Your task to perform on an android device: turn notification dots off Image 0: 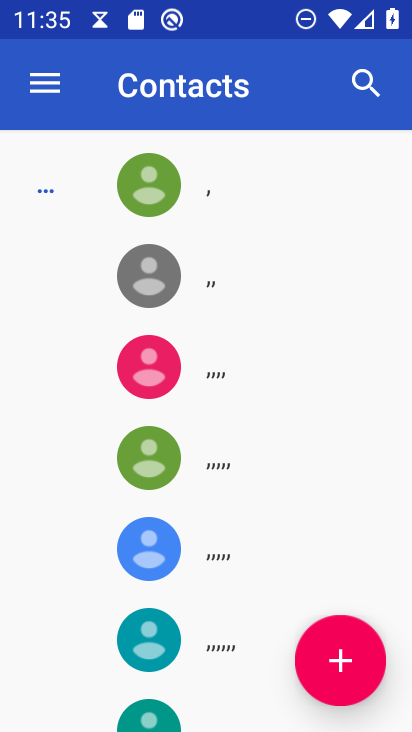
Step 0: press home button
Your task to perform on an android device: turn notification dots off Image 1: 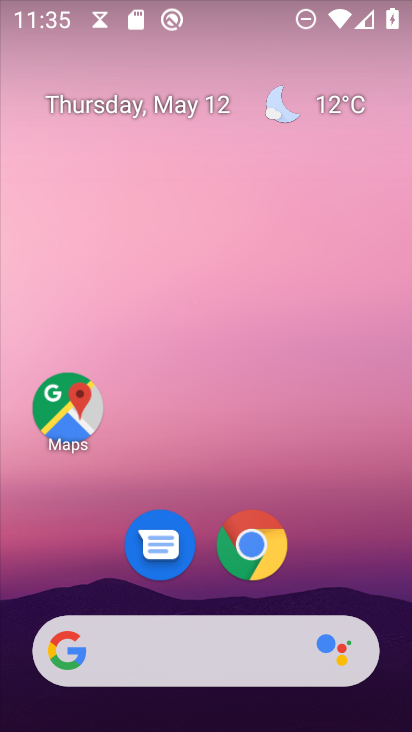
Step 1: drag from (207, 593) to (245, 52)
Your task to perform on an android device: turn notification dots off Image 2: 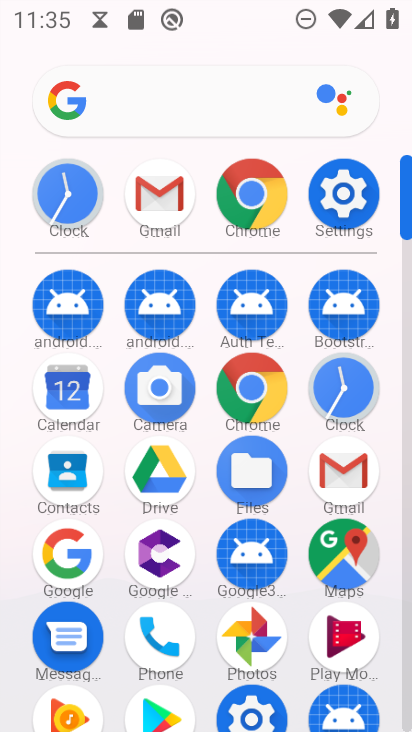
Step 2: click (342, 190)
Your task to perform on an android device: turn notification dots off Image 3: 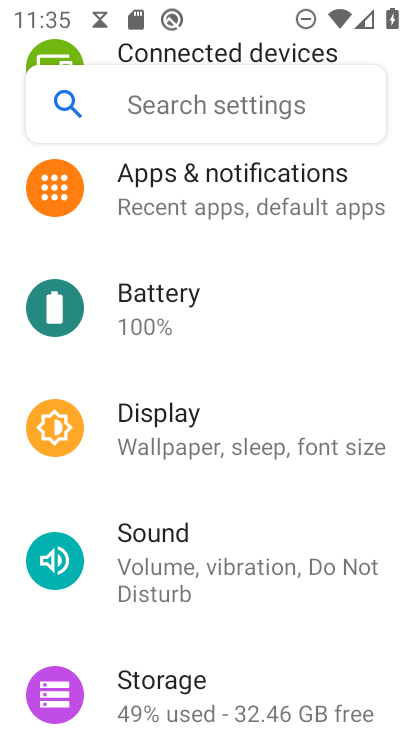
Step 3: click (192, 194)
Your task to perform on an android device: turn notification dots off Image 4: 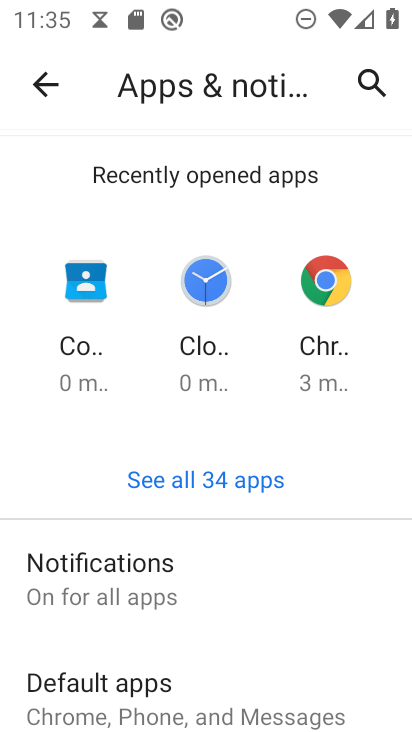
Step 4: click (186, 572)
Your task to perform on an android device: turn notification dots off Image 5: 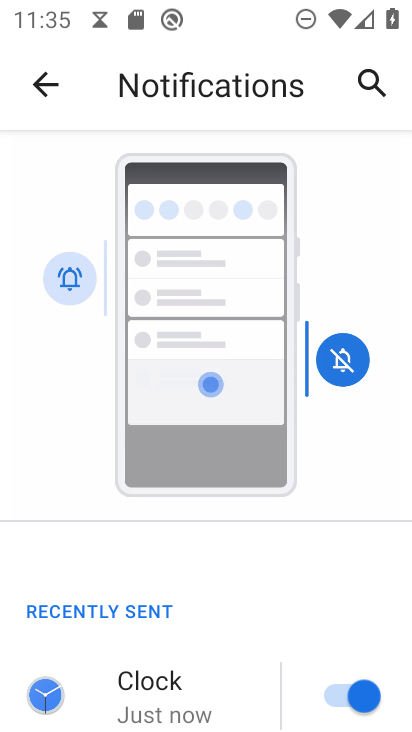
Step 5: drag from (239, 679) to (258, 144)
Your task to perform on an android device: turn notification dots off Image 6: 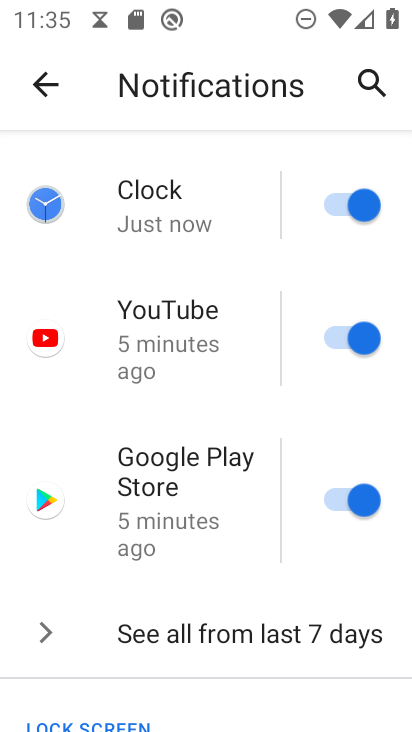
Step 6: drag from (245, 679) to (249, 178)
Your task to perform on an android device: turn notification dots off Image 7: 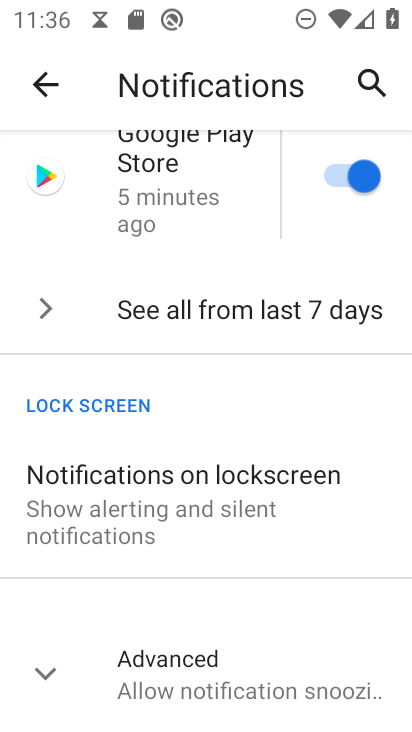
Step 7: click (40, 662)
Your task to perform on an android device: turn notification dots off Image 8: 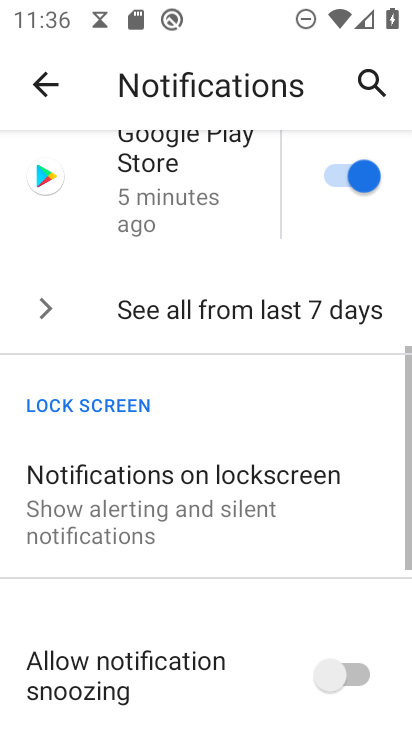
Step 8: task complete